Your task to perform on an android device: allow cookies in the chrome app Image 0: 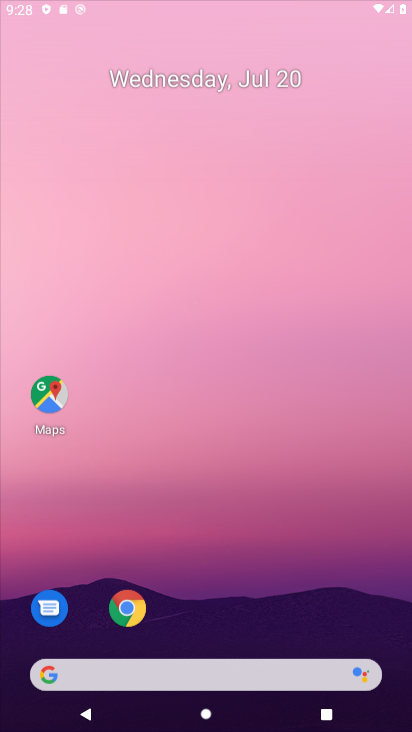
Step 0: drag from (215, 184) to (242, 11)
Your task to perform on an android device: allow cookies in the chrome app Image 1: 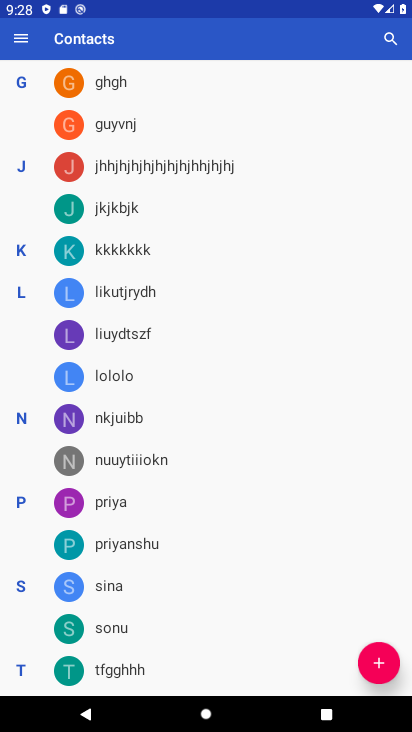
Step 1: press back button
Your task to perform on an android device: allow cookies in the chrome app Image 2: 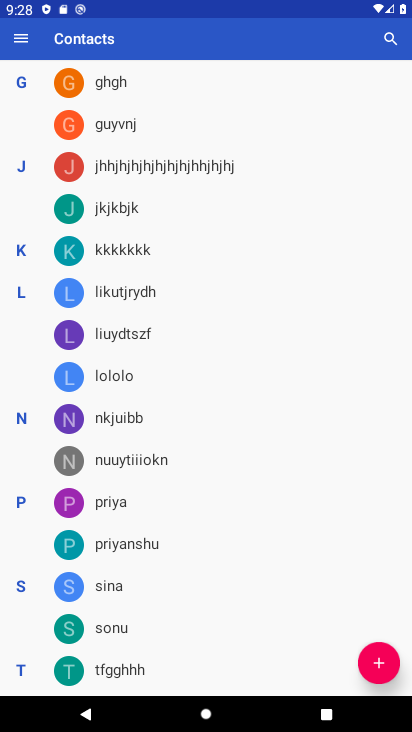
Step 2: press back button
Your task to perform on an android device: allow cookies in the chrome app Image 3: 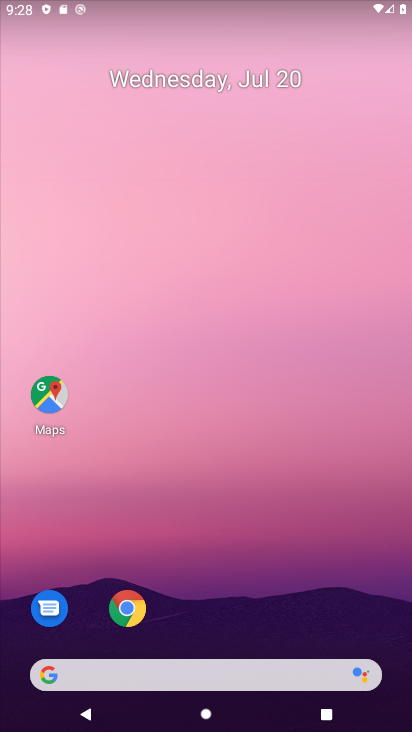
Step 3: drag from (272, 679) to (253, 99)
Your task to perform on an android device: allow cookies in the chrome app Image 4: 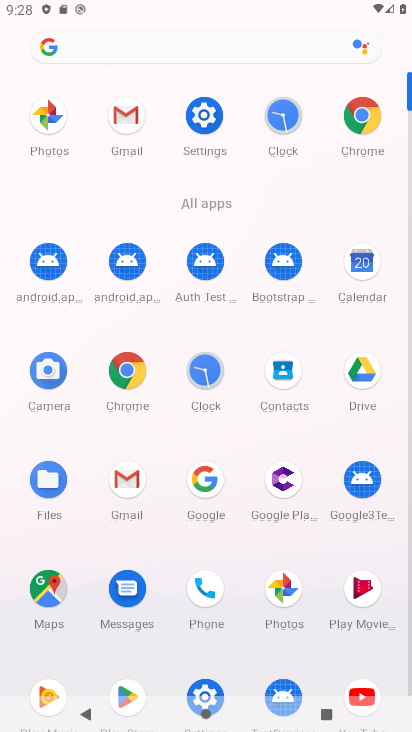
Step 4: click (120, 372)
Your task to perform on an android device: allow cookies in the chrome app Image 5: 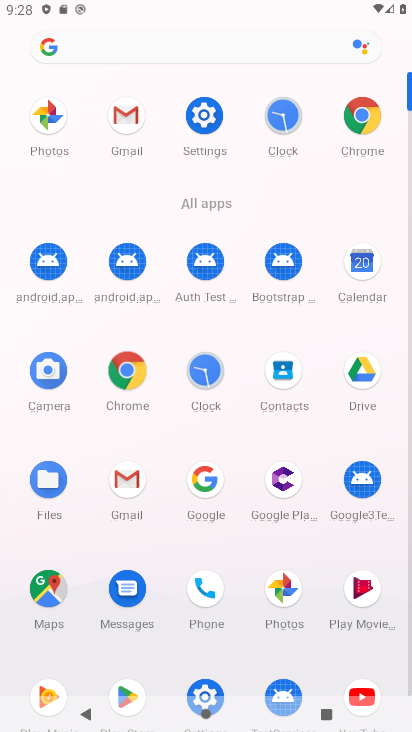
Step 5: click (121, 373)
Your task to perform on an android device: allow cookies in the chrome app Image 6: 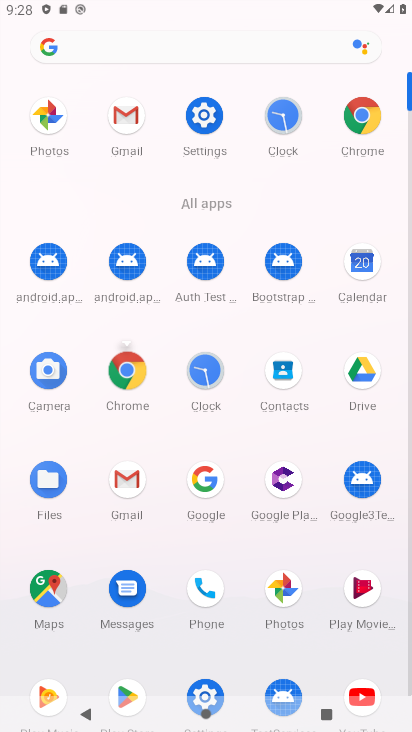
Step 6: click (123, 374)
Your task to perform on an android device: allow cookies in the chrome app Image 7: 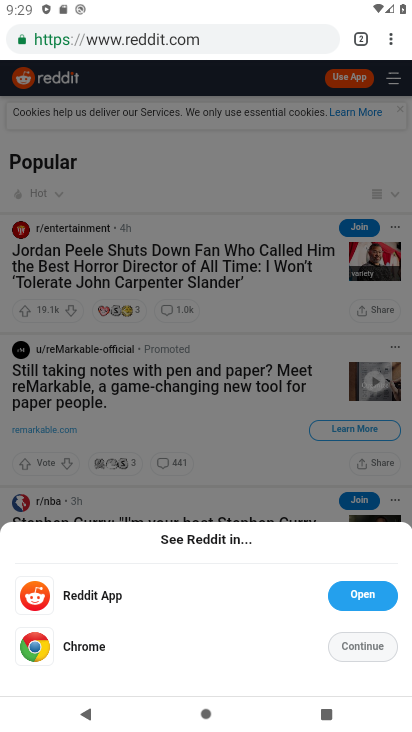
Step 7: click (397, 41)
Your task to perform on an android device: allow cookies in the chrome app Image 8: 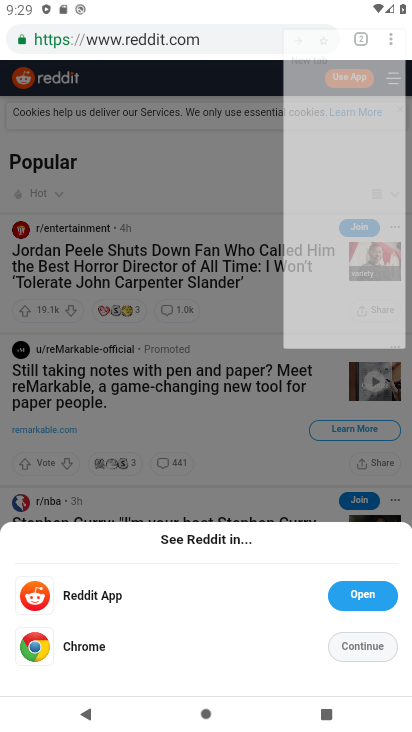
Step 8: click (398, 42)
Your task to perform on an android device: allow cookies in the chrome app Image 9: 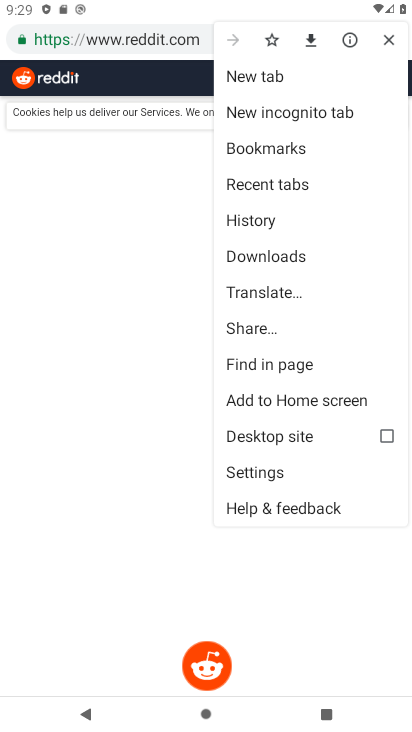
Step 9: click (252, 471)
Your task to perform on an android device: allow cookies in the chrome app Image 10: 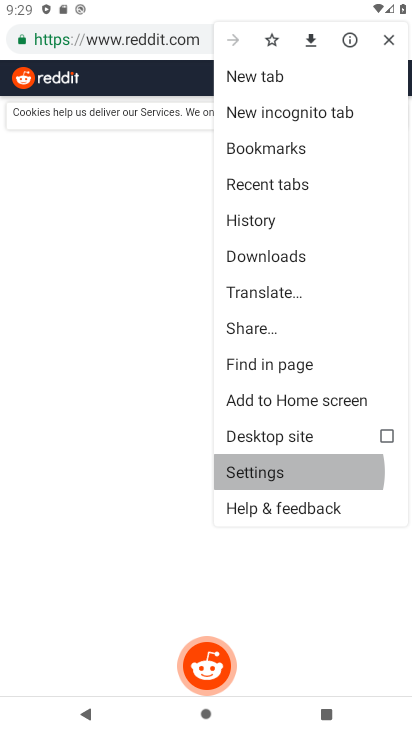
Step 10: click (259, 462)
Your task to perform on an android device: allow cookies in the chrome app Image 11: 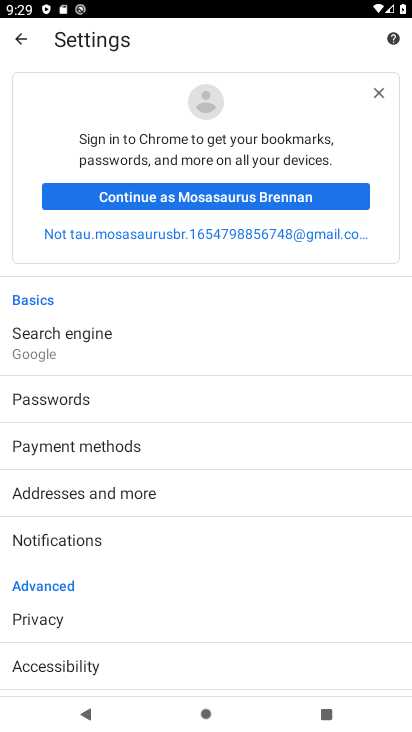
Step 11: drag from (72, 626) to (53, 215)
Your task to perform on an android device: allow cookies in the chrome app Image 12: 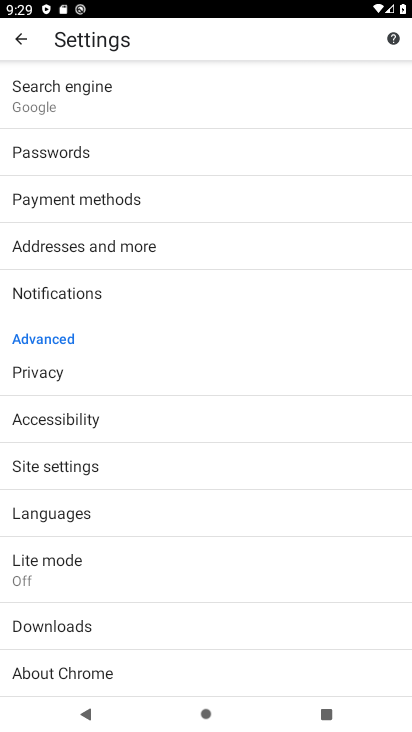
Step 12: click (44, 460)
Your task to perform on an android device: allow cookies in the chrome app Image 13: 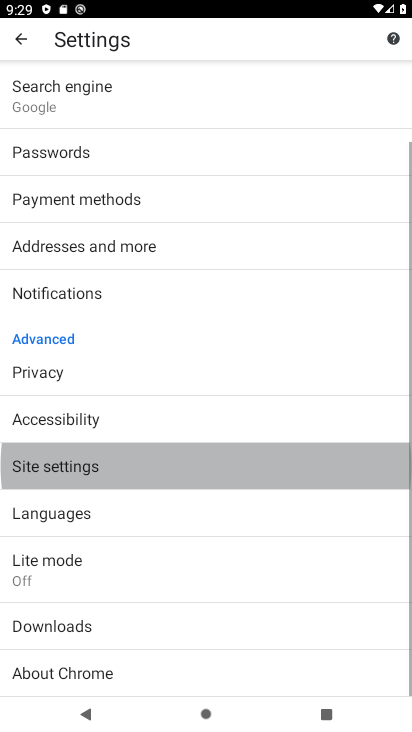
Step 13: click (43, 459)
Your task to perform on an android device: allow cookies in the chrome app Image 14: 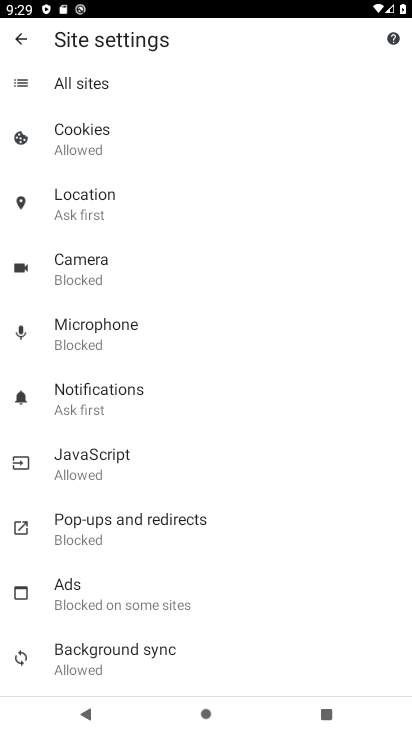
Step 14: click (66, 109)
Your task to perform on an android device: allow cookies in the chrome app Image 15: 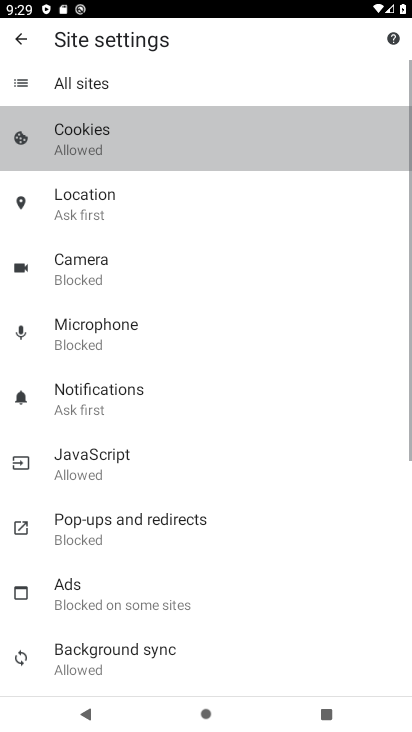
Step 15: click (79, 139)
Your task to perform on an android device: allow cookies in the chrome app Image 16: 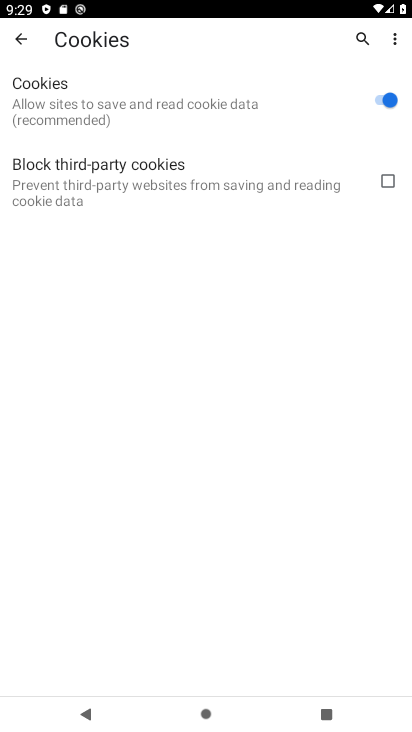
Step 16: task complete